Your task to perform on an android device: turn on translation in the chrome app Image 0: 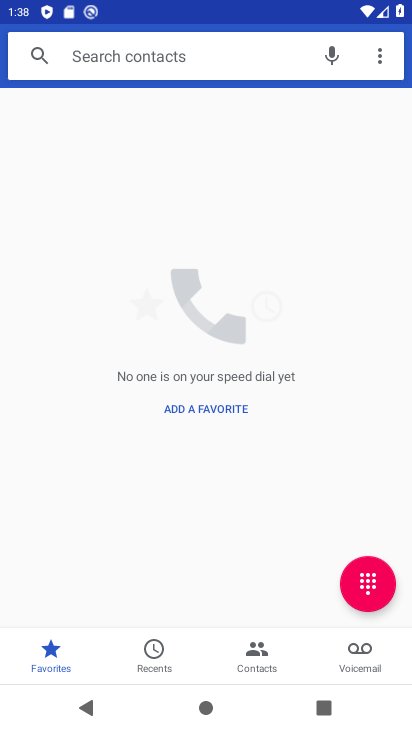
Step 0: press home button
Your task to perform on an android device: turn on translation in the chrome app Image 1: 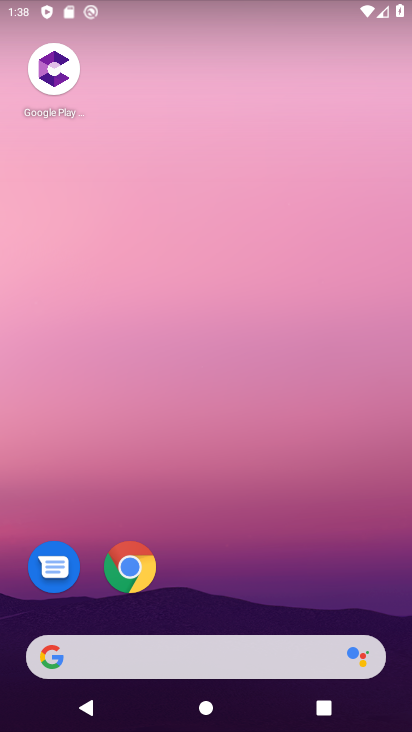
Step 1: click (129, 577)
Your task to perform on an android device: turn on translation in the chrome app Image 2: 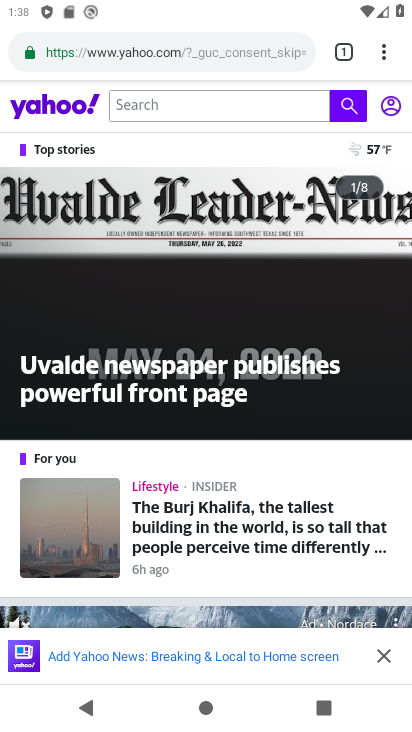
Step 2: click (387, 48)
Your task to perform on an android device: turn on translation in the chrome app Image 3: 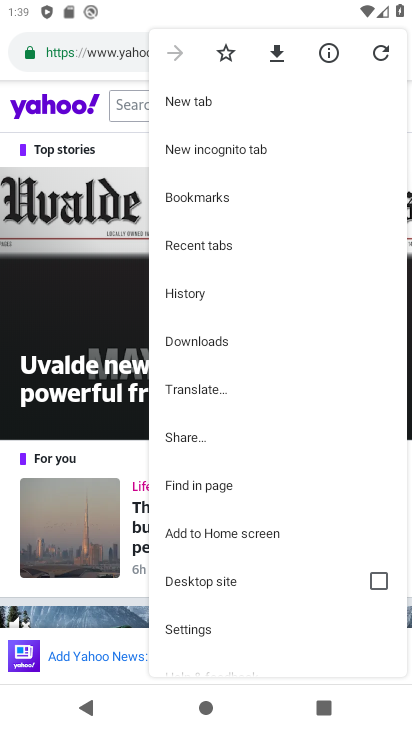
Step 3: click (234, 627)
Your task to perform on an android device: turn on translation in the chrome app Image 4: 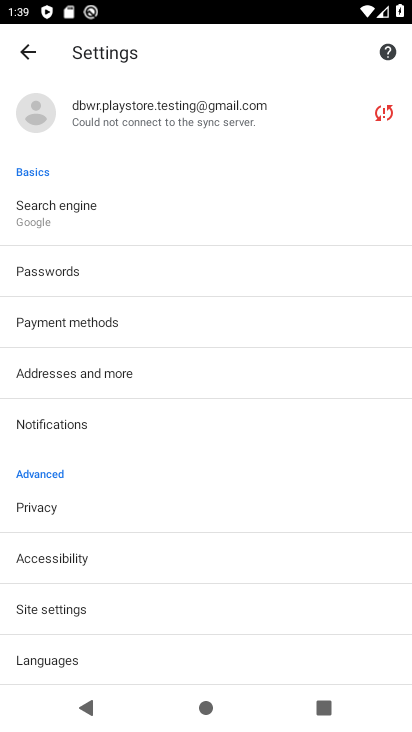
Step 4: click (135, 648)
Your task to perform on an android device: turn on translation in the chrome app Image 5: 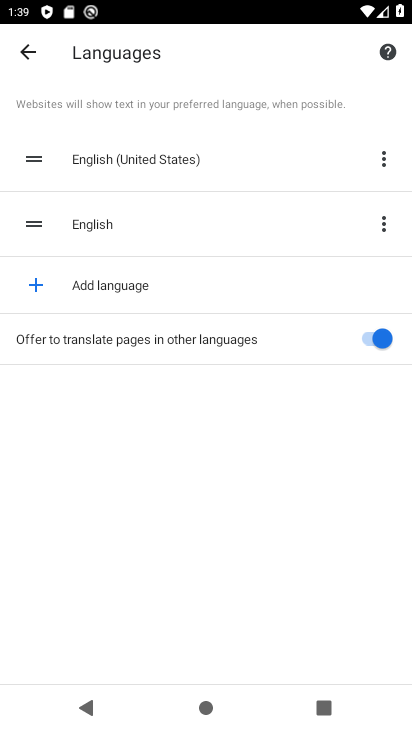
Step 5: task complete